Your task to perform on an android device: Open Youtube and go to the subscriptions tab Image 0: 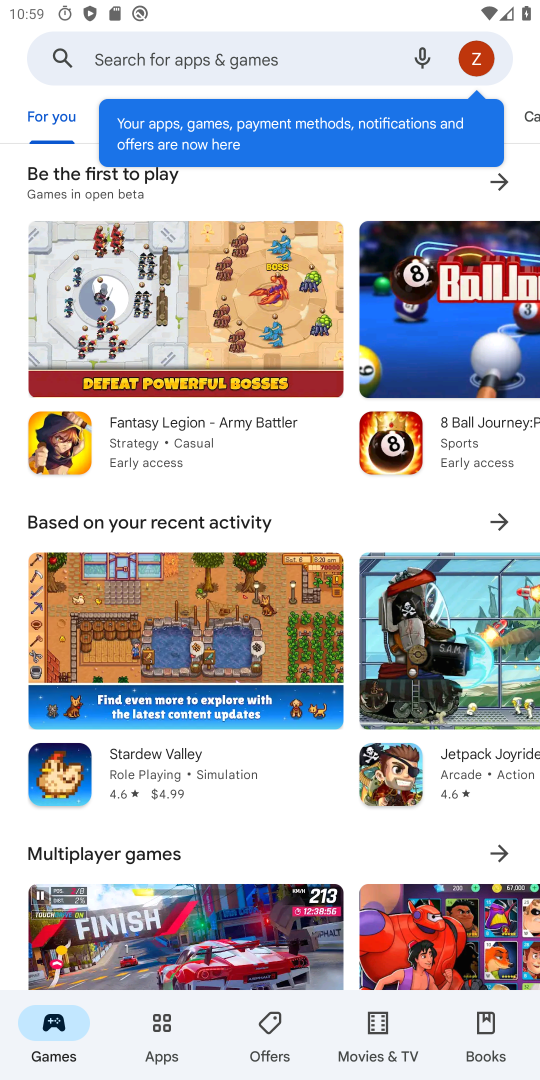
Step 0: press home button
Your task to perform on an android device: Open Youtube and go to the subscriptions tab Image 1: 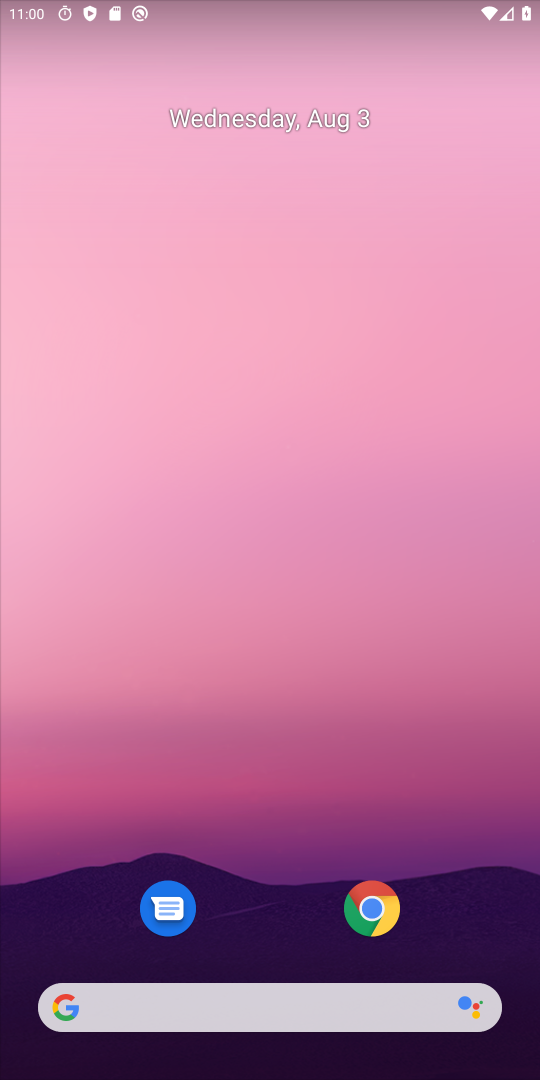
Step 1: drag from (334, 1019) to (314, 299)
Your task to perform on an android device: Open Youtube and go to the subscriptions tab Image 2: 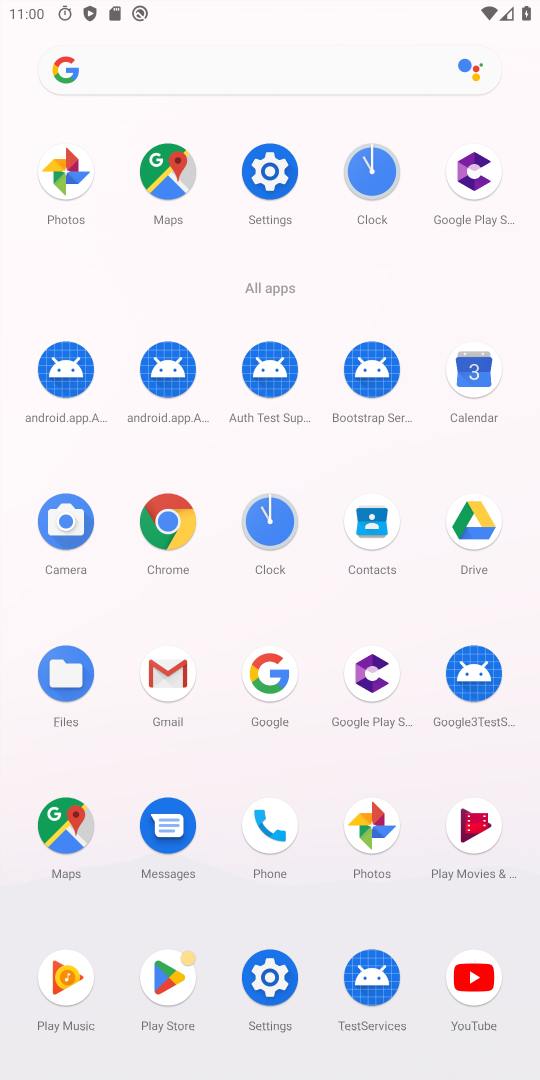
Step 2: click (452, 977)
Your task to perform on an android device: Open Youtube and go to the subscriptions tab Image 3: 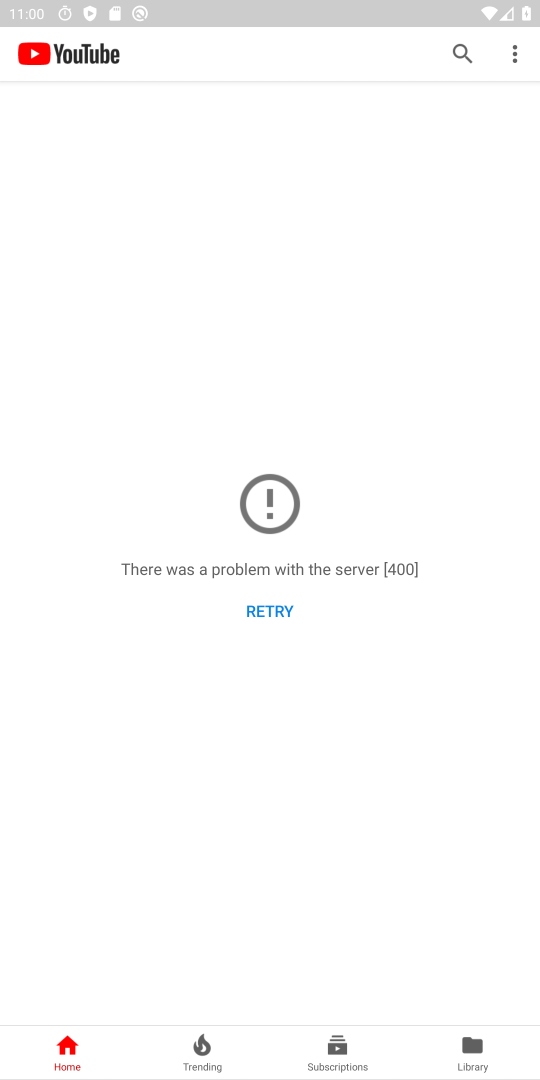
Step 3: click (358, 1046)
Your task to perform on an android device: Open Youtube and go to the subscriptions tab Image 4: 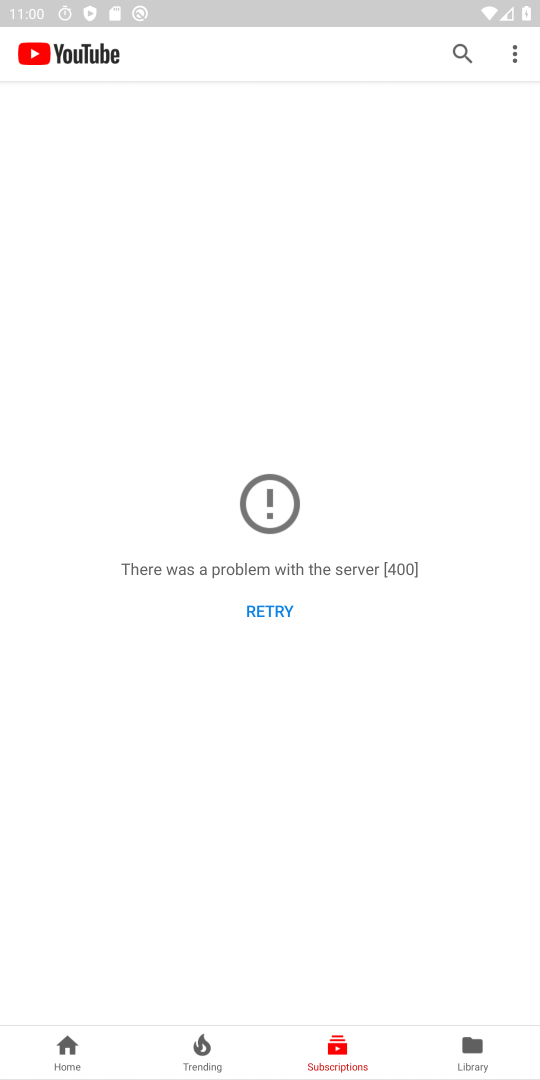
Step 4: click (268, 619)
Your task to perform on an android device: Open Youtube and go to the subscriptions tab Image 5: 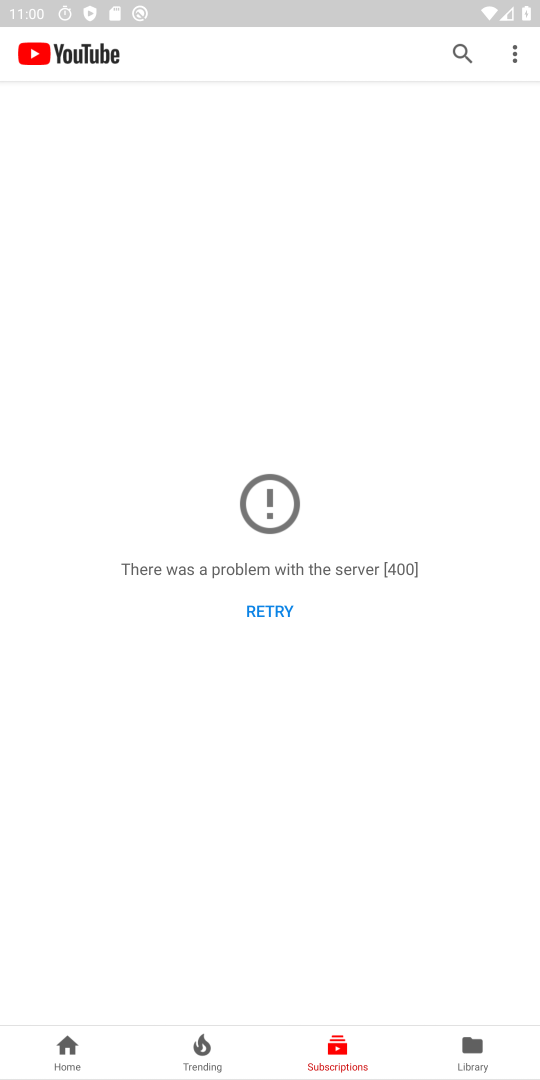
Step 5: click (265, 624)
Your task to perform on an android device: Open Youtube and go to the subscriptions tab Image 6: 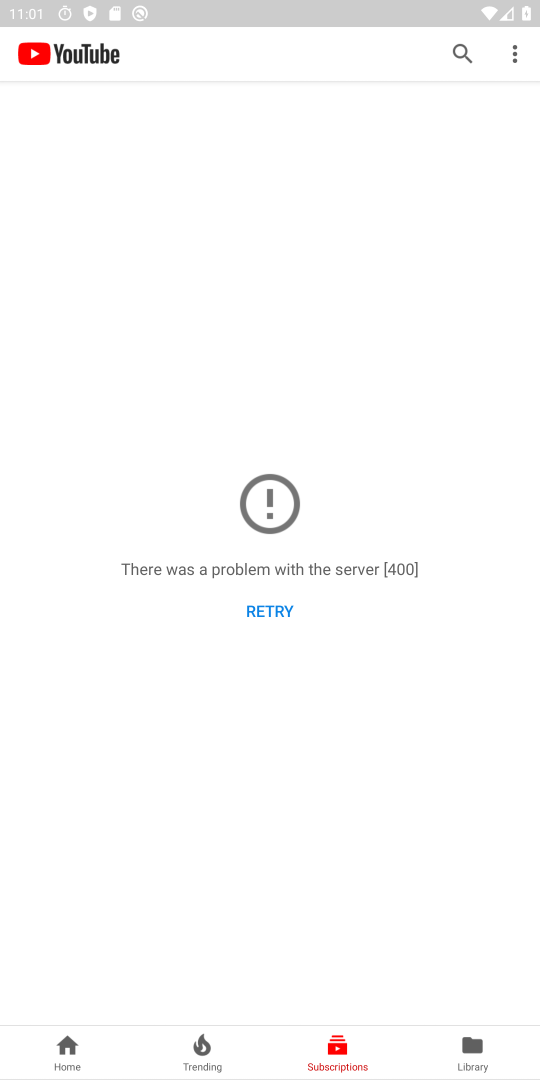
Step 6: task complete